Your task to perform on an android device: Go to Wikipedia Image 0: 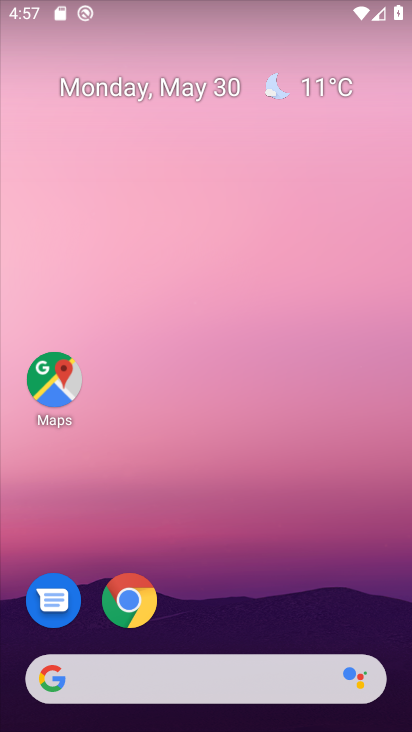
Step 0: drag from (351, 584) to (358, 149)
Your task to perform on an android device: Go to Wikipedia Image 1: 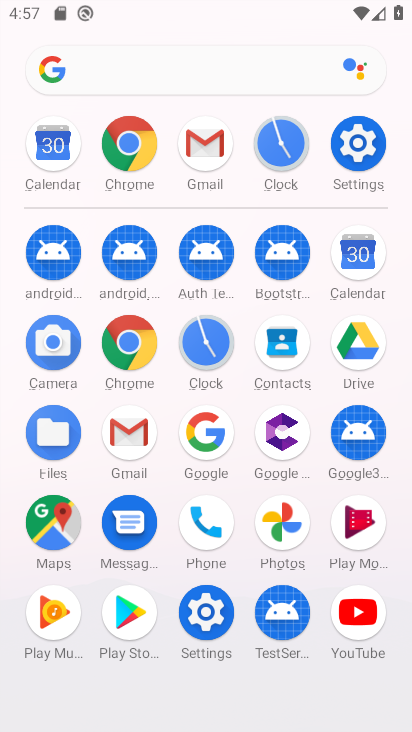
Step 1: click (114, 152)
Your task to perform on an android device: Go to Wikipedia Image 2: 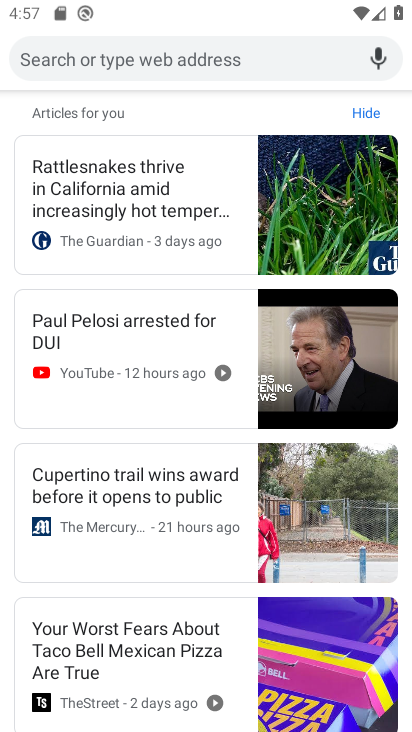
Step 2: drag from (141, 156) to (15, 714)
Your task to perform on an android device: Go to Wikipedia Image 3: 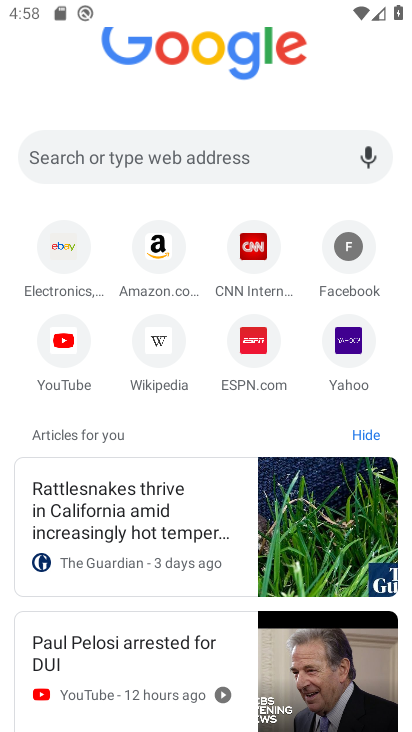
Step 3: click (156, 347)
Your task to perform on an android device: Go to Wikipedia Image 4: 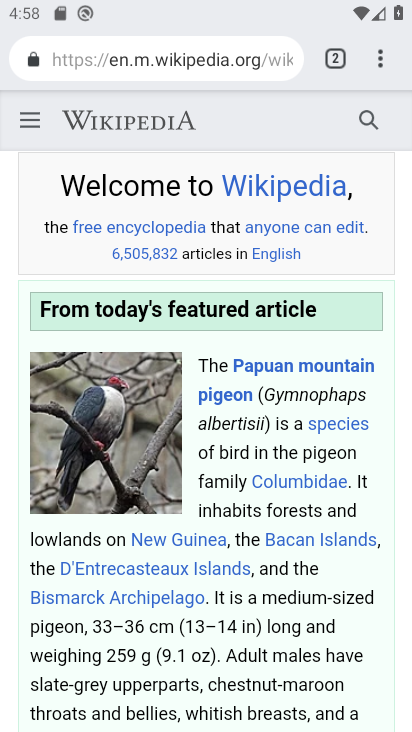
Step 4: task complete